Your task to perform on an android device: create a new album in the google photos Image 0: 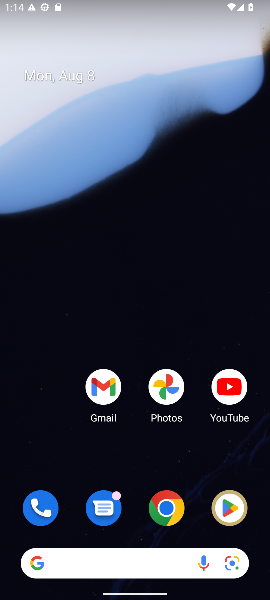
Step 0: drag from (133, 473) to (138, 129)
Your task to perform on an android device: create a new album in the google photos Image 1: 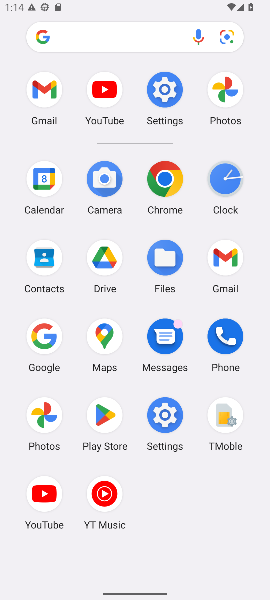
Step 1: click (223, 90)
Your task to perform on an android device: create a new album in the google photos Image 2: 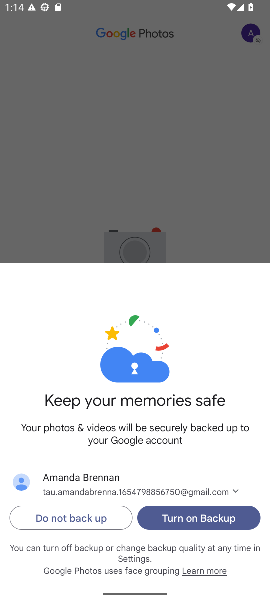
Step 2: press home button
Your task to perform on an android device: create a new album in the google photos Image 3: 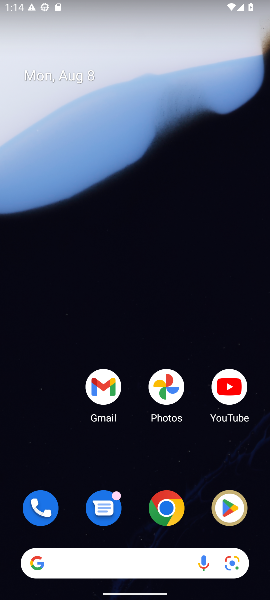
Step 3: click (163, 386)
Your task to perform on an android device: create a new album in the google photos Image 4: 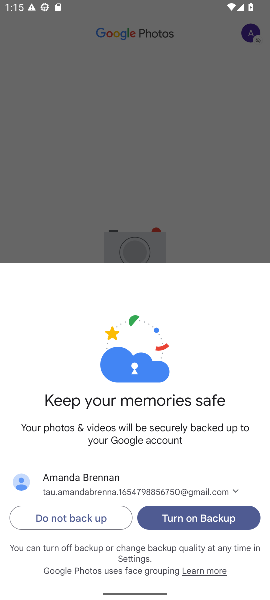
Step 4: click (172, 513)
Your task to perform on an android device: create a new album in the google photos Image 5: 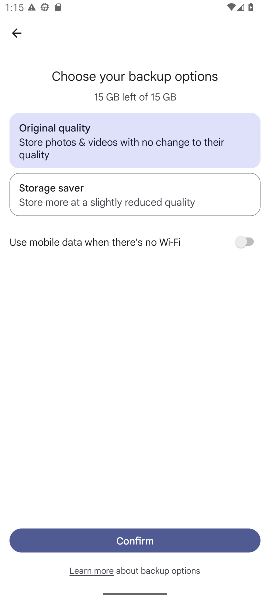
Step 5: click (142, 541)
Your task to perform on an android device: create a new album in the google photos Image 6: 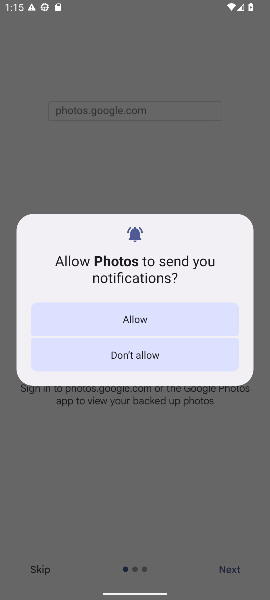
Step 6: click (127, 308)
Your task to perform on an android device: create a new album in the google photos Image 7: 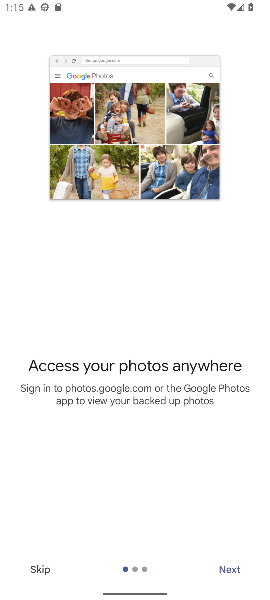
Step 7: click (224, 568)
Your task to perform on an android device: create a new album in the google photos Image 8: 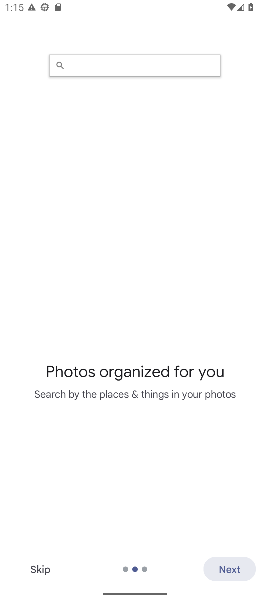
Step 8: click (234, 568)
Your task to perform on an android device: create a new album in the google photos Image 9: 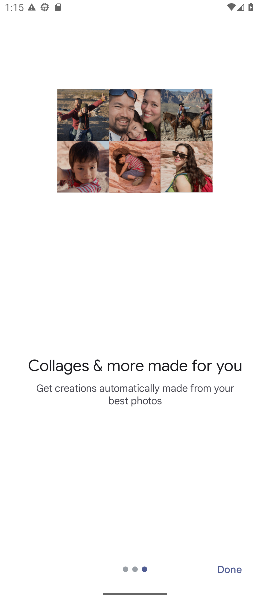
Step 9: click (234, 568)
Your task to perform on an android device: create a new album in the google photos Image 10: 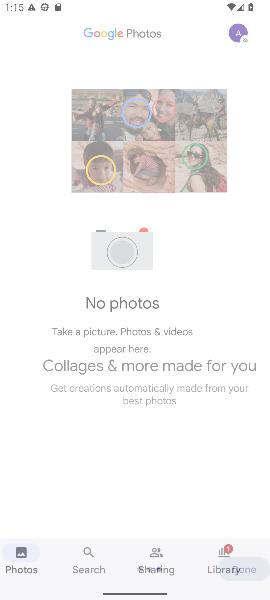
Step 10: click (234, 568)
Your task to perform on an android device: create a new album in the google photos Image 11: 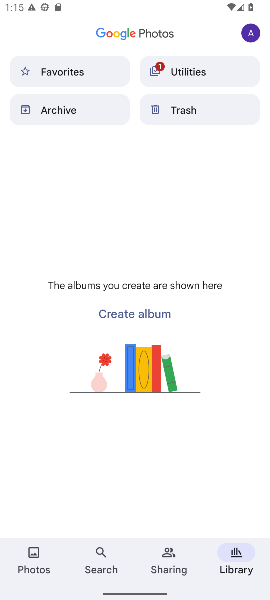
Step 11: click (154, 309)
Your task to perform on an android device: create a new album in the google photos Image 12: 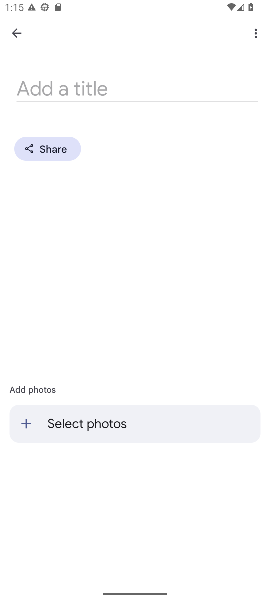
Step 12: task complete